Your task to perform on an android device: install app "Booking.com: Hotels and more" Image 0: 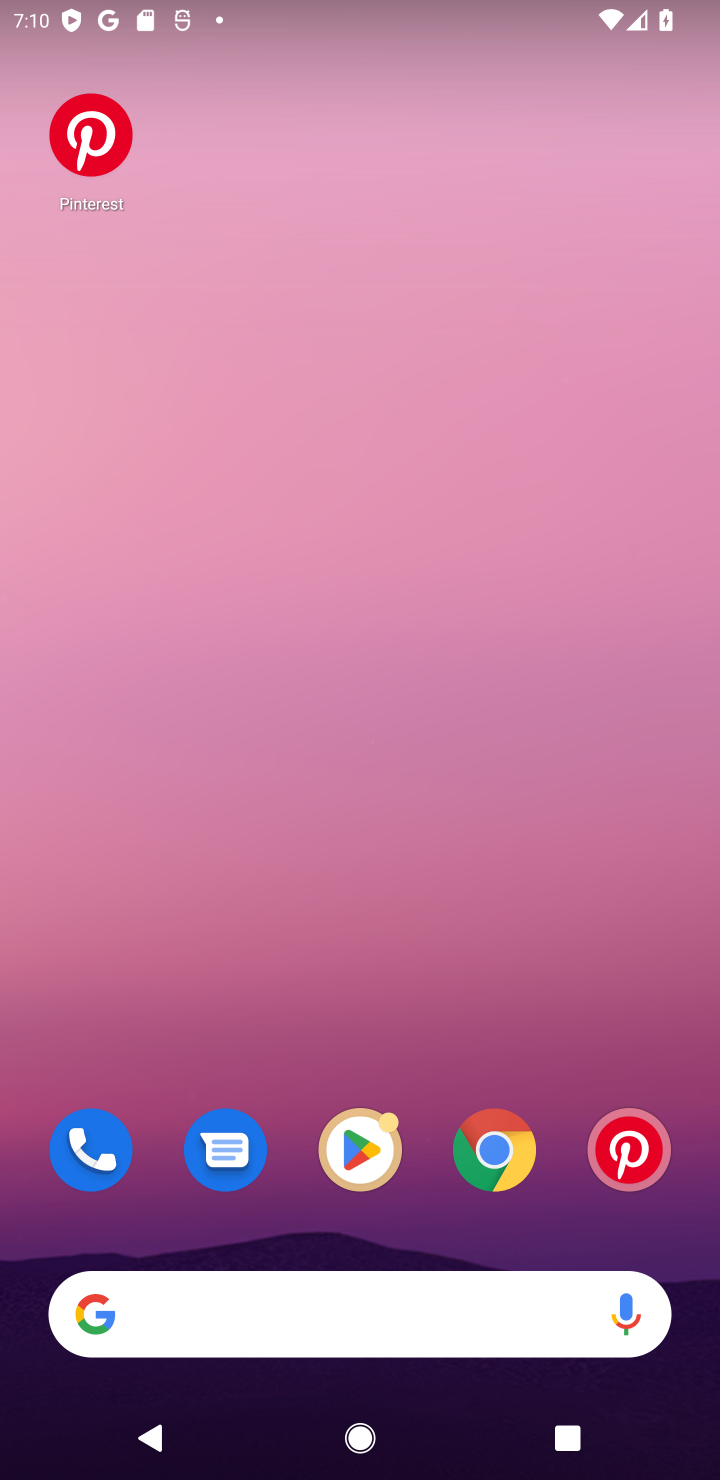
Step 0: click (398, 1147)
Your task to perform on an android device: install app "Booking.com: Hotels and more" Image 1: 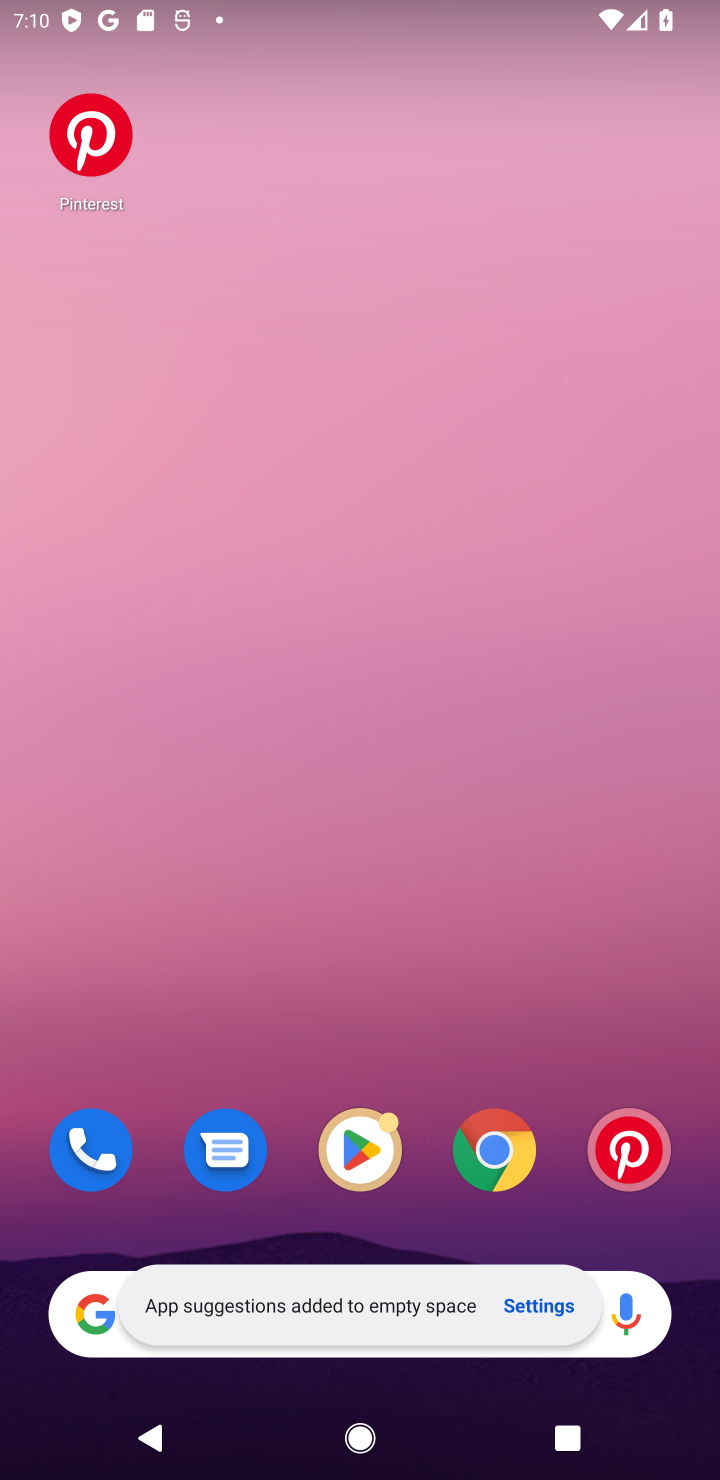
Step 1: click (371, 1140)
Your task to perform on an android device: install app "Booking.com: Hotels and more" Image 2: 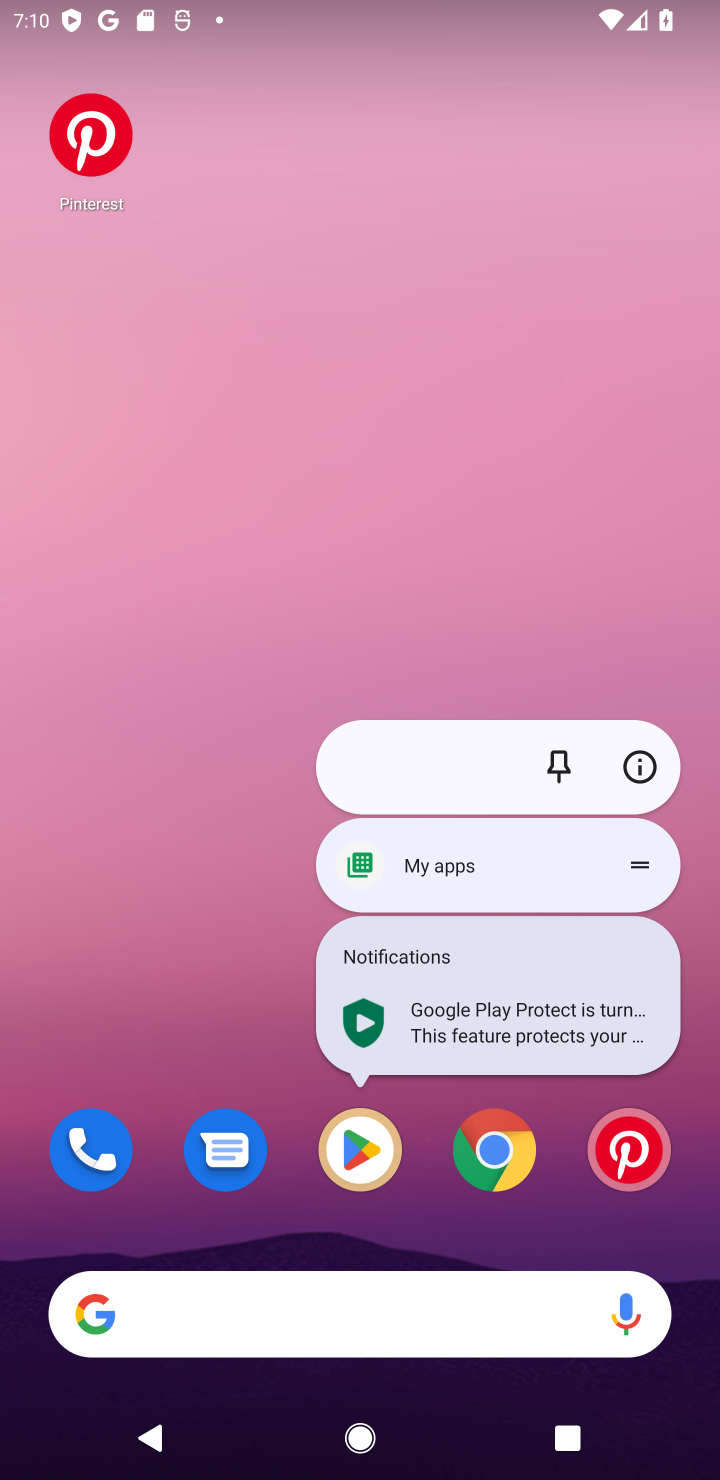
Step 2: click (370, 1138)
Your task to perform on an android device: install app "Booking.com: Hotels and more" Image 3: 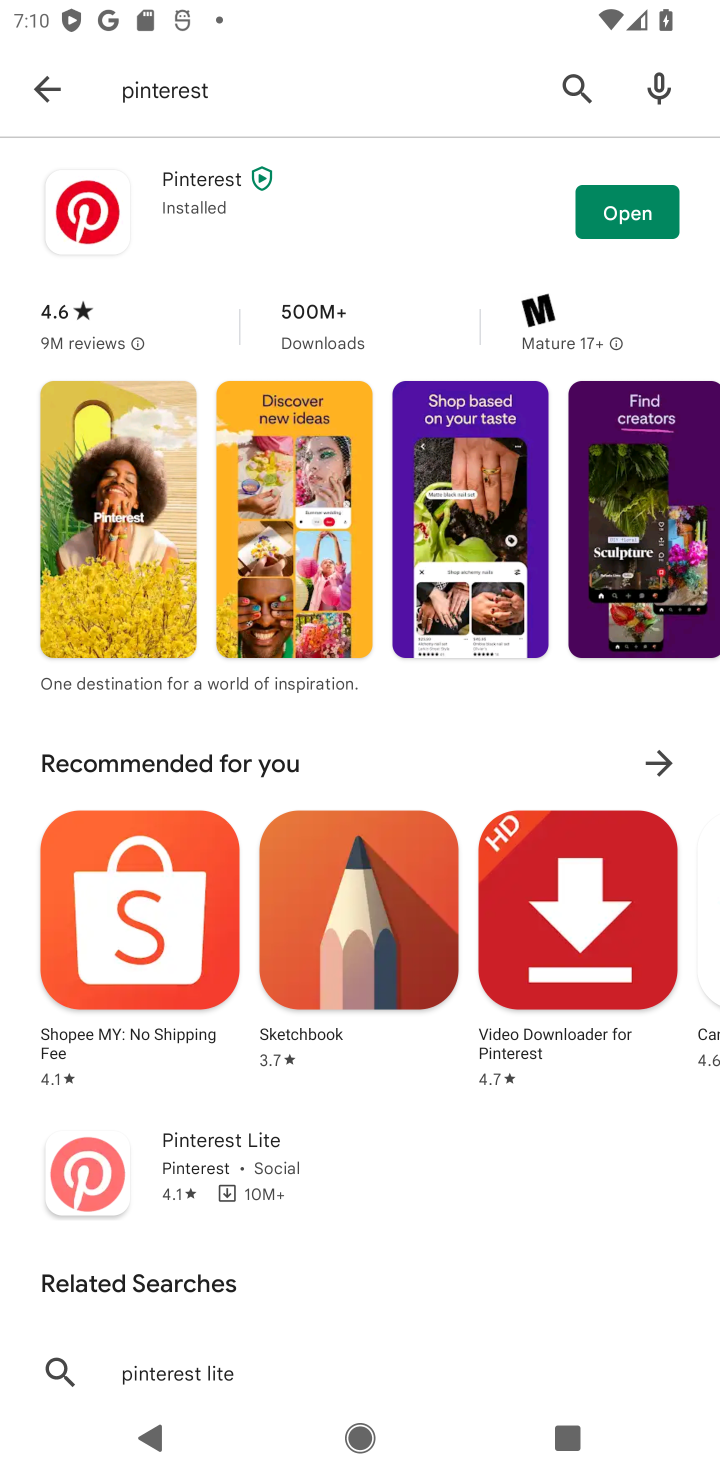
Step 3: click (45, 102)
Your task to perform on an android device: install app "Booking.com: Hotels and more" Image 4: 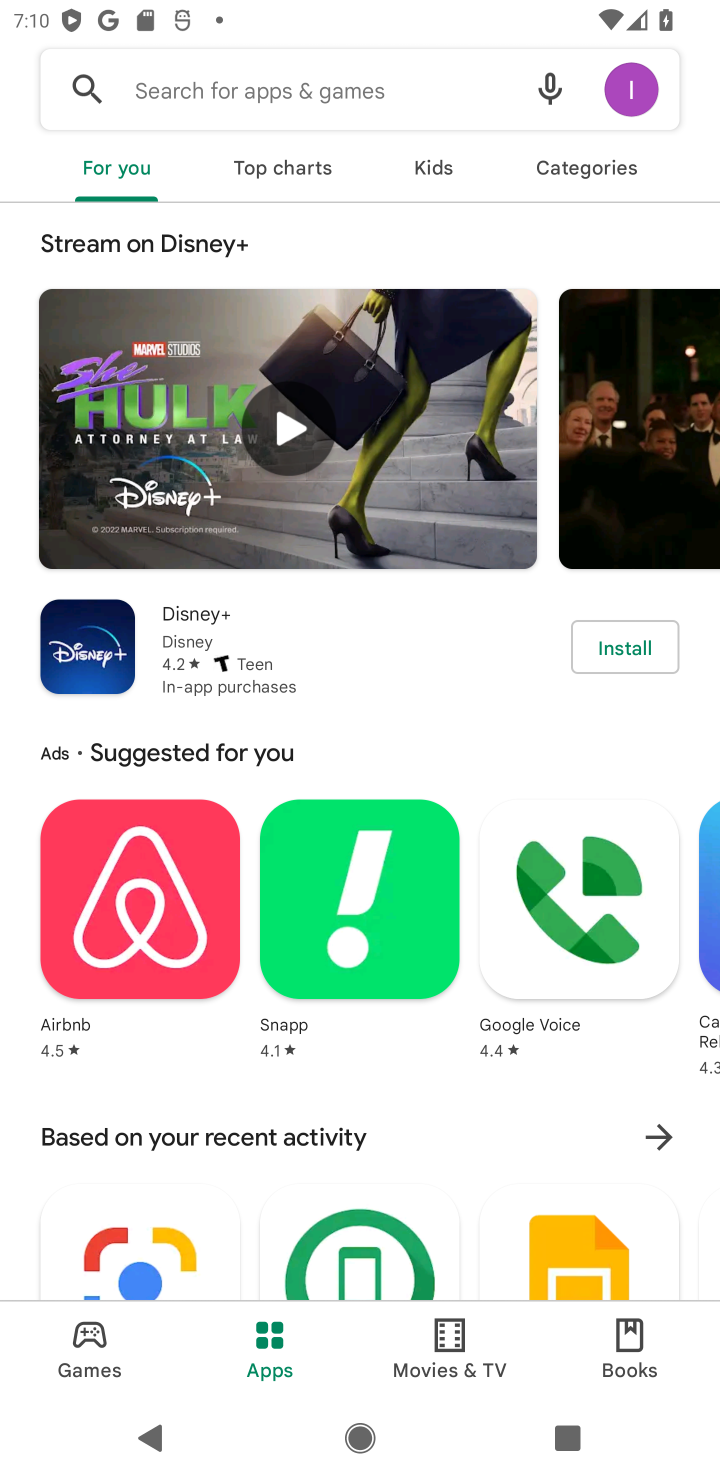
Step 4: click (140, 89)
Your task to perform on an android device: install app "Booking.com: Hotels and more" Image 5: 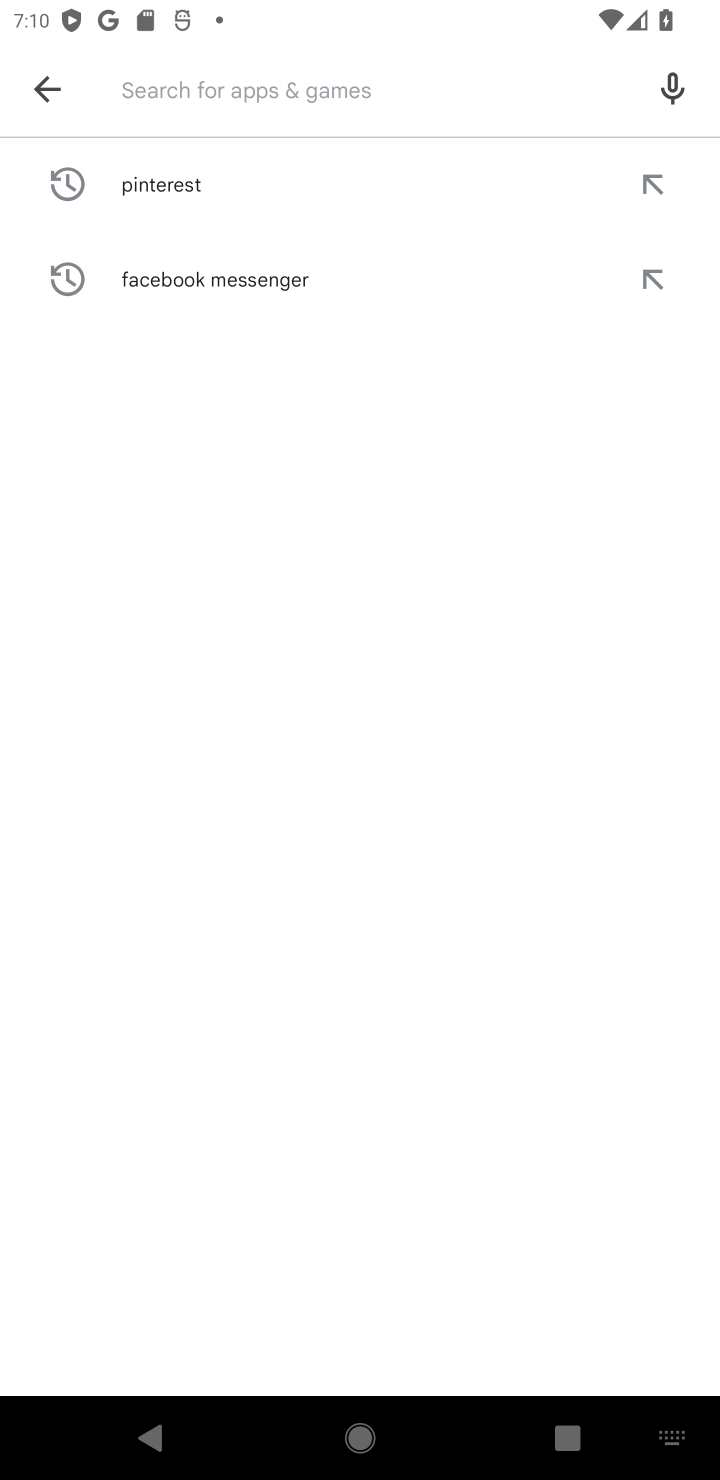
Step 5: type "Booking.com: Hotels and more"
Your task to perform on an android device: install app "Booking.com: Hotels and more" Image 6: 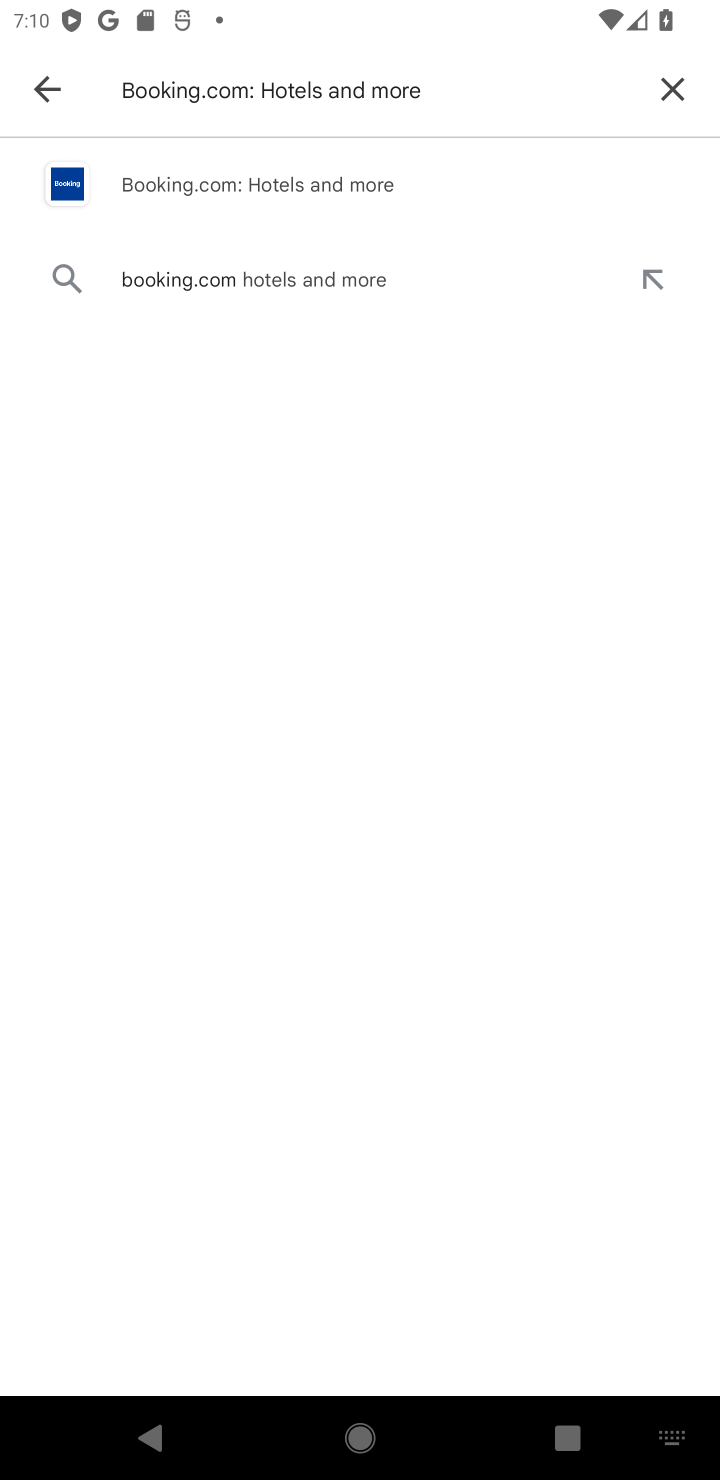
Step 6: click (68, 180)
Your task to perform on an android device: install app "Booking.com: Hotels and more" Image 7: 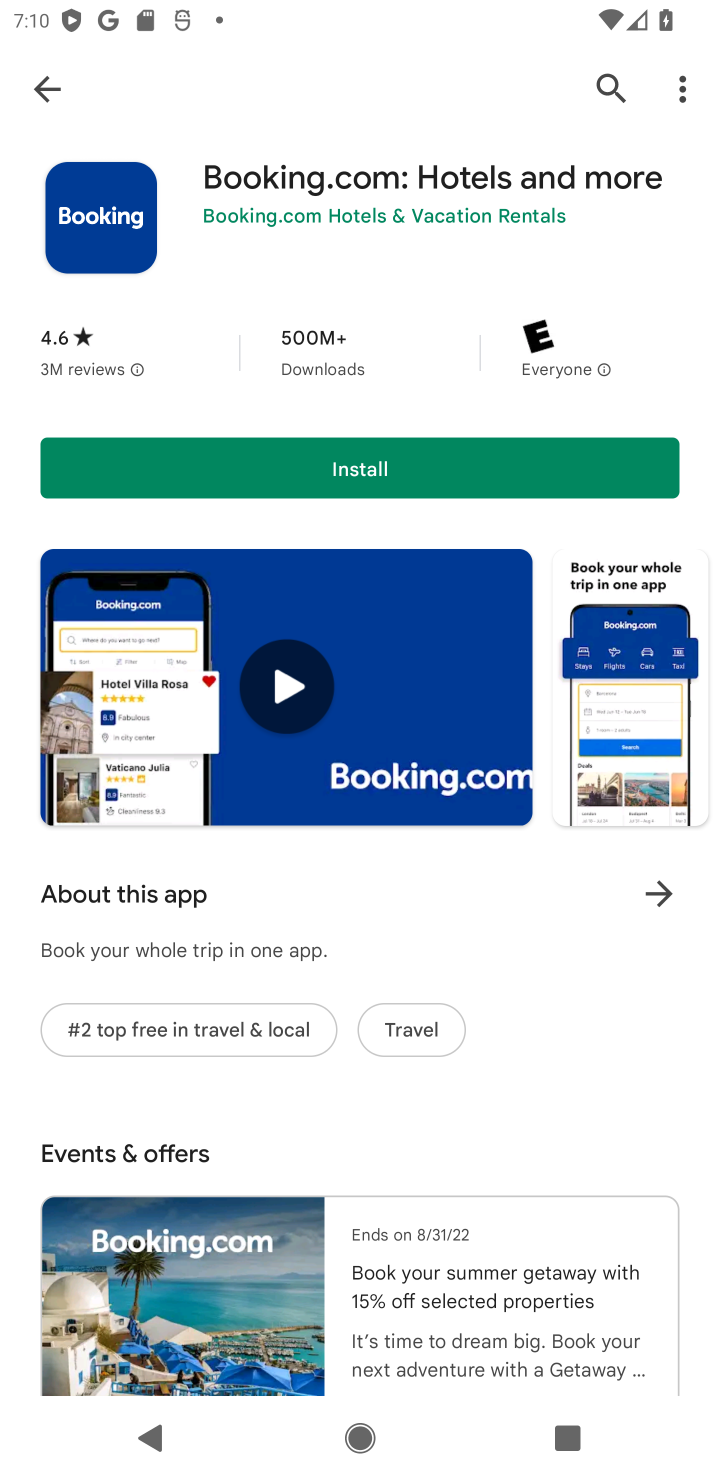
Step 7: click (394, 471)
Your task to perform on an android device: install app "Booking.com: Hotels and more" Image 8: 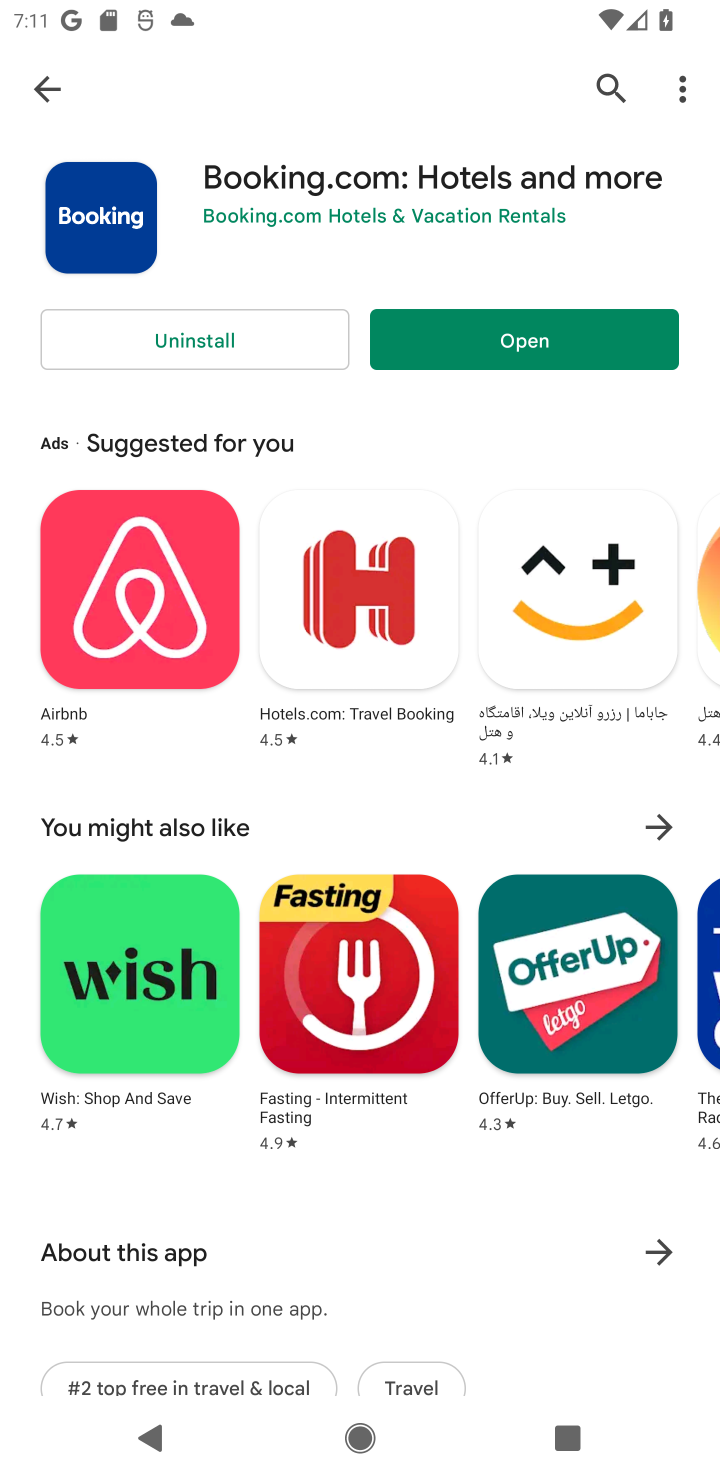
Step 8: click (455, 372)
Your task to perform on an android device: install app "Booking.com: Hotels and more" Image 9: 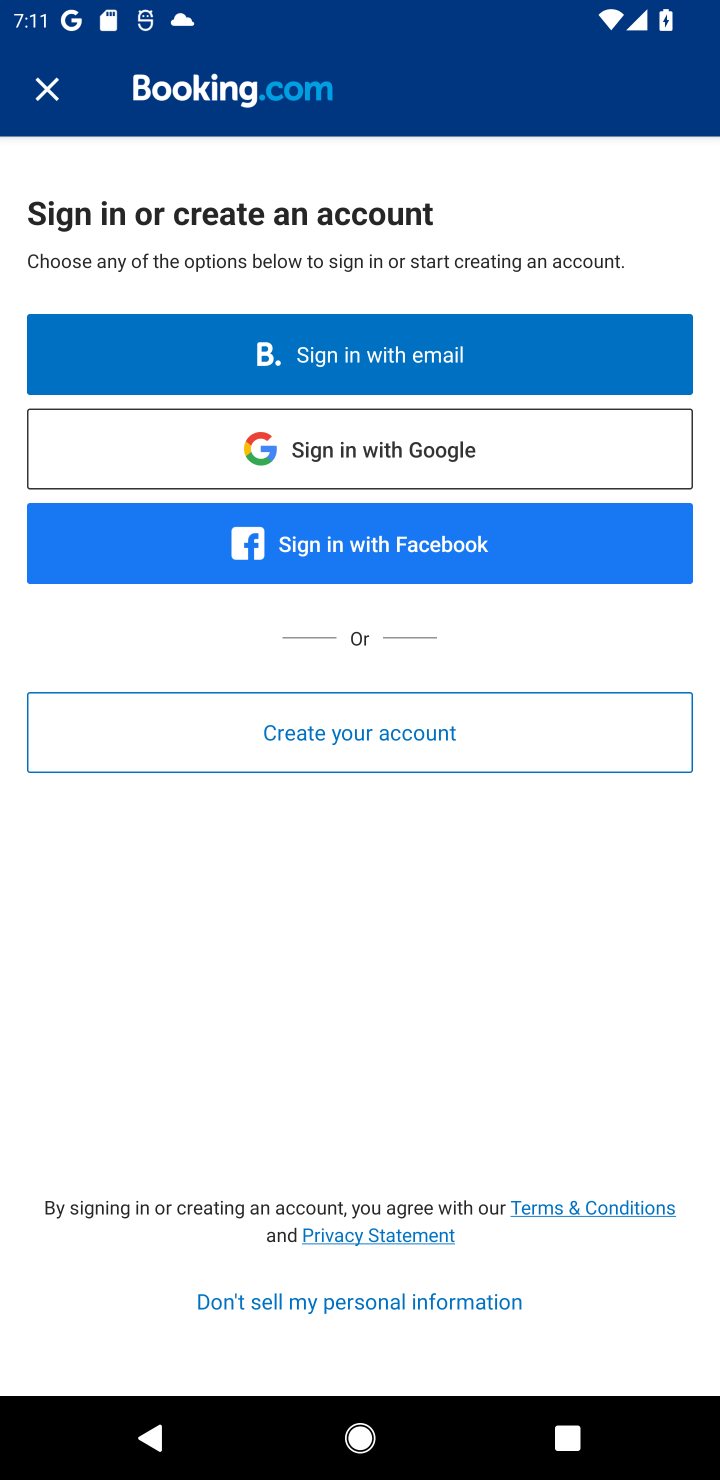
Step 9: task complete